Your task to perform on an android device: Go to display settings Image 0: 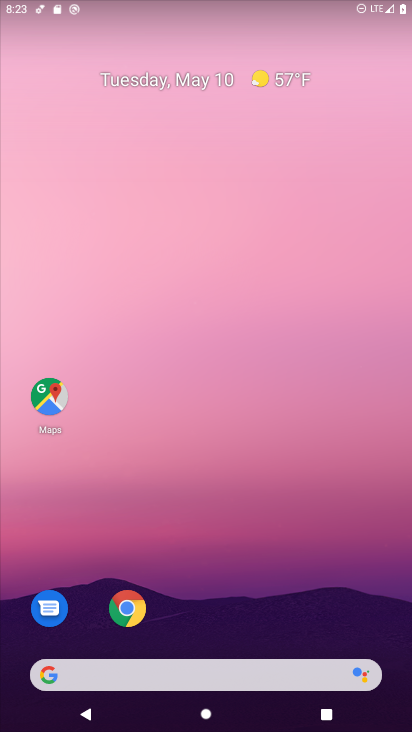
Step 0: drag from (339, 604) to (282, 38)
Your task to perform on an android device: Go to display settings Image 1: 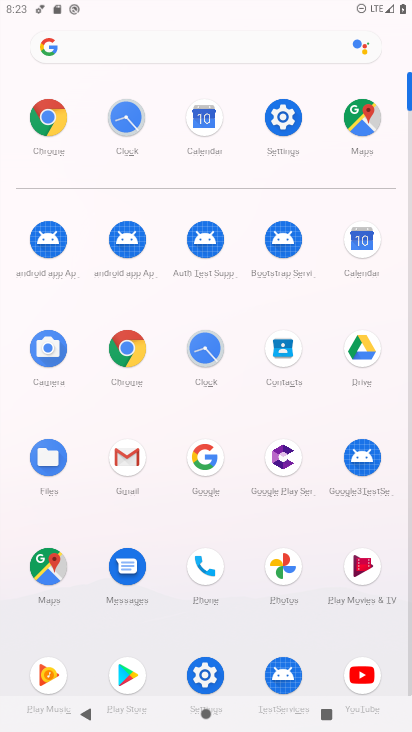
Step 1: click (216, 664)
Your task to perform on an android device: Go to display settings Image 2: 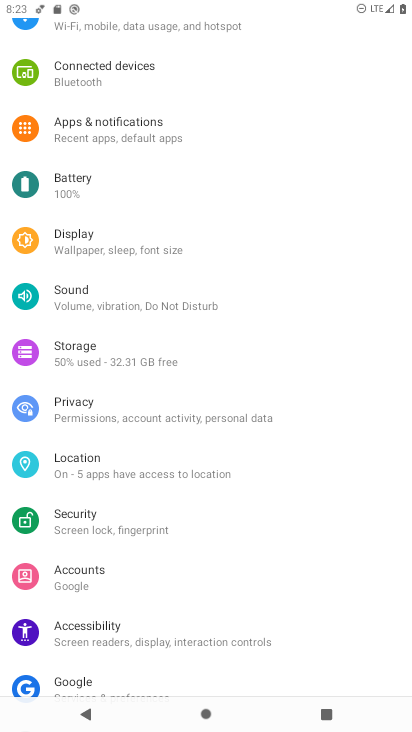
Step 2: click (124, 245)
Your task to perform on an android device: Go to display settings Image 3: 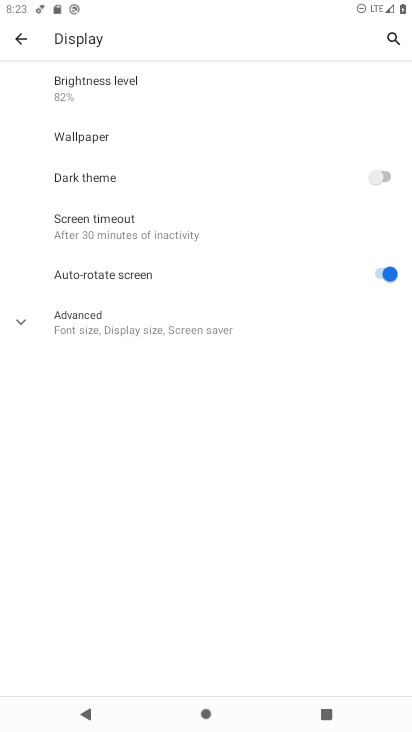
Step 3: task complete